Your task to perform on an android device: turn off notifications settings in the gmail app Image 0: 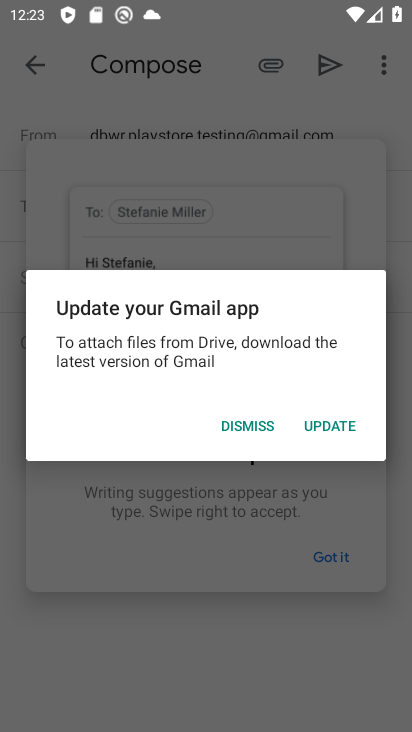
Step 0: press home button
Your task to perform on an android device: turn off notifications settings in the gmail app Image 1: 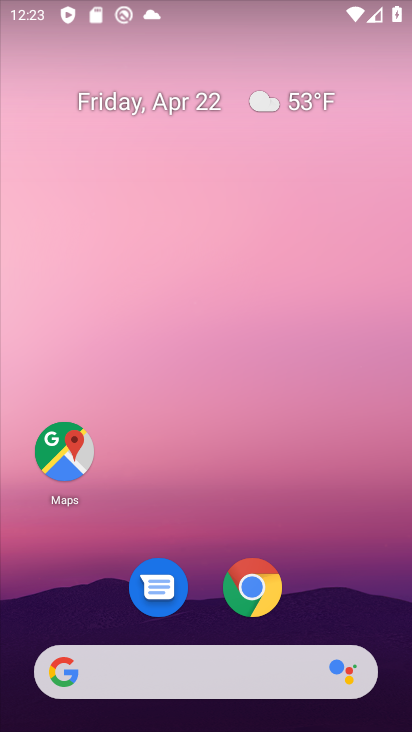
Step 1: drag from (354, 579) to (344, 0)
Your task to perform on an android device: turn off notifications settings in the gmail app Image 2: 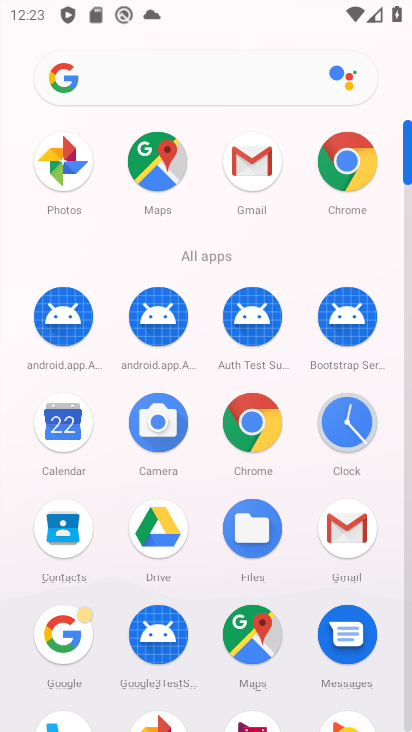
Step 2: click (351, 510)
Your task to perform on an android device: turn off notifications settings in the gmail app Image 3: 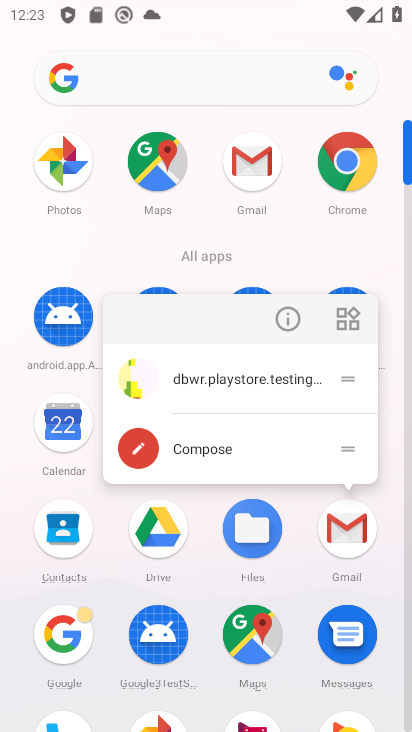
Step 3: click (290, 311)
Your task to perform on an android device: turn off notifications settings in the gmail app Image 4: 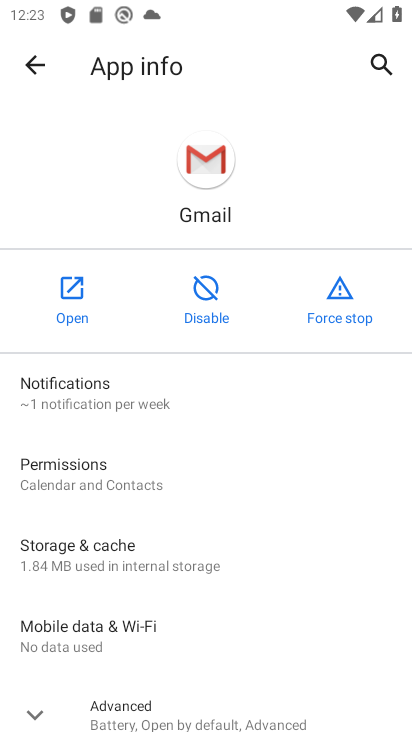
Step 4: click (95, 392)
Your task to perform on an android device: turn off notifications settings in the gmail app Image 5: 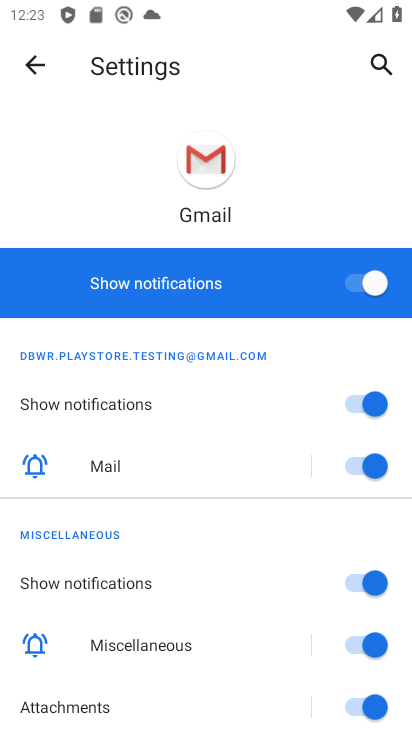
Step 5: click (359, 281)
Your task to perform on an android device: turn off notifications settings in the gmail app Image 6: 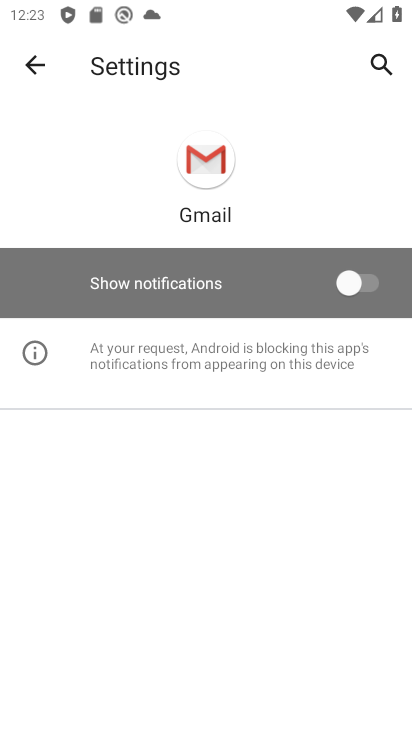
Step 6: task complete